Your task to perform on an android device: snooze an email in the gmail app Image 0: 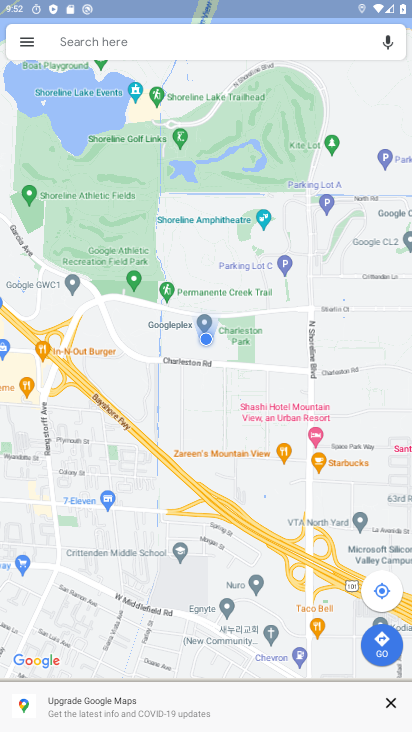
Step 0: press home button
Your task to perform on an android device: snooze an email in the gmail app Image 1: 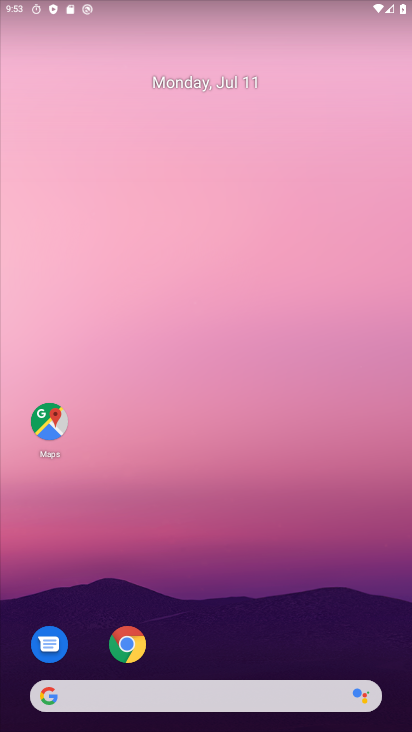
Step 1: drag from (214, 598) to (241, 166)
Your task to perform on an android device: snooze an email in the gmail app Image 2: 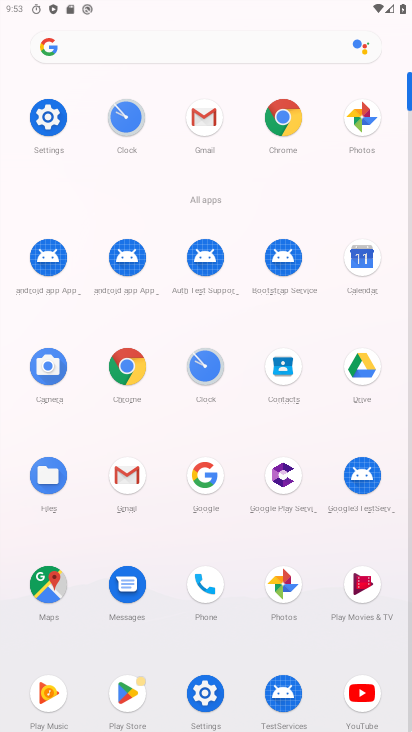
Step 2: click (200, 123)
Your task to perform on an android device: snooze an email in the gmail app Image 3: 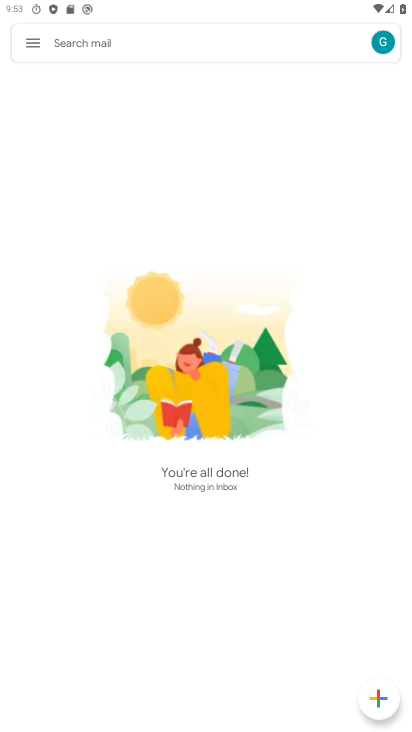
Step 3: click (37, 43)
Your task to perform on an android device: snooze an email in the gmail app Image 4: 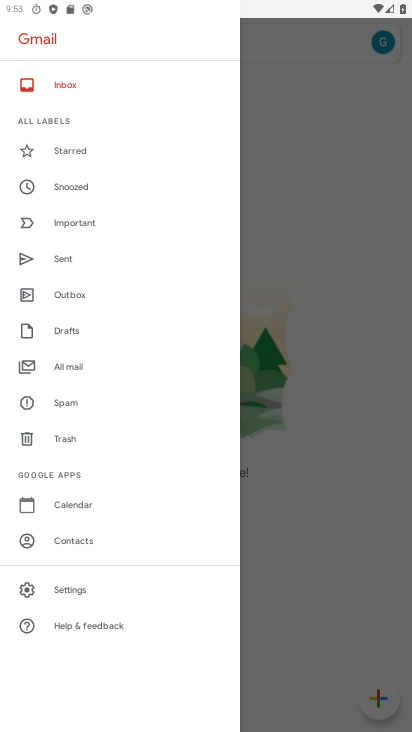
Step 4: click (77, 369)
Your task to perform on an android device: snooze an email in the gmail app Image 5: 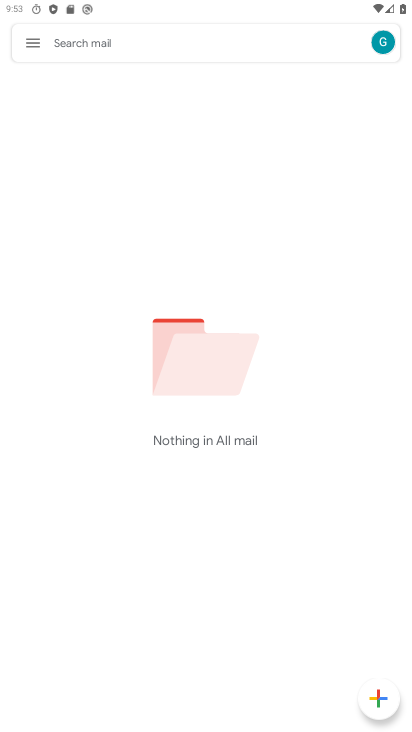
Step 5: task complete